Your task to perform on an android device: Set the phone to "Do not disturb". Image 0: 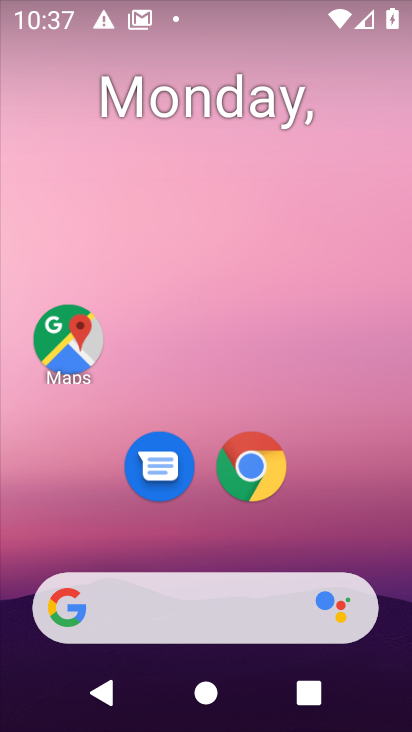
Step 0: drag from (247, 539) to (219, 593)
Your task to perform on an android device: Set the phone to "Do not disturb". Image 1: 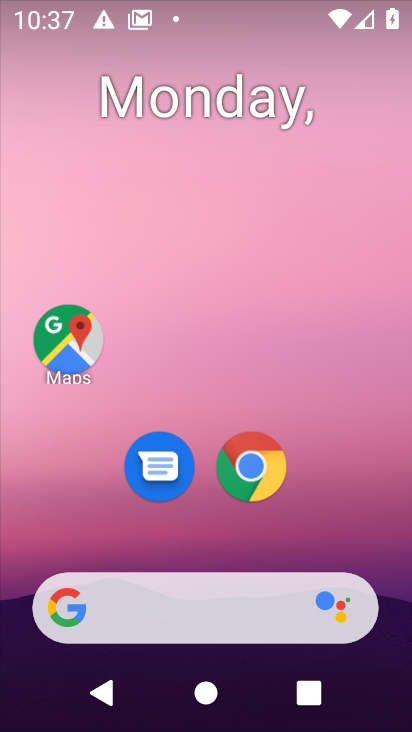
Step 1: drag from (80, 0) to (116, 519)
Your task to perform on an android device: Set the phone to "Do not disturb". Image 2: 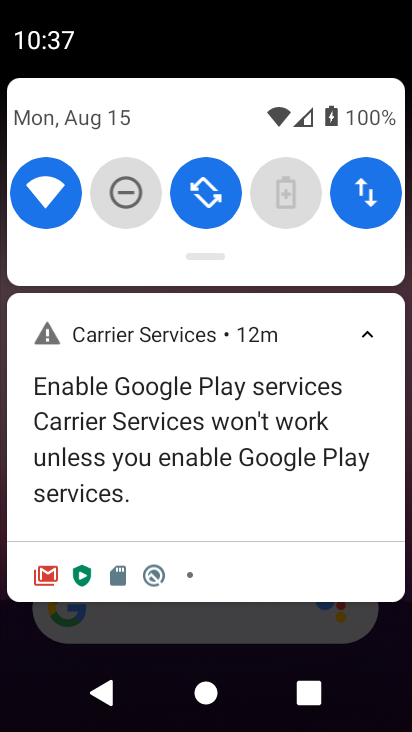
Step 2: click (133, 199)
Your task to perform on an android device: Set the phone to "Do not disturb". Image 3: 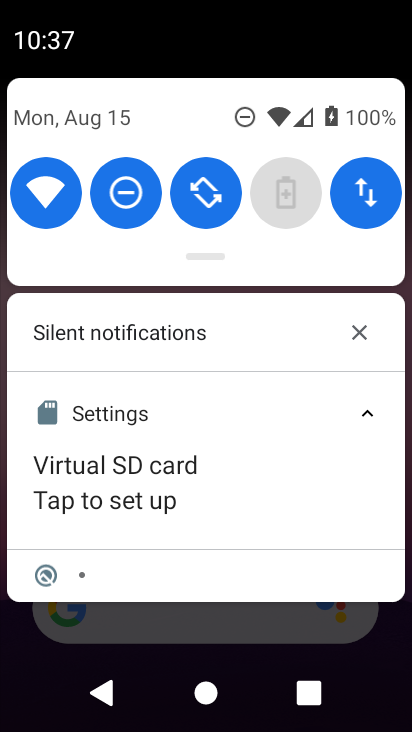
Step 3: task complete